Your task to perform on an android device: manage bookmarks in the chrome app Image 0: 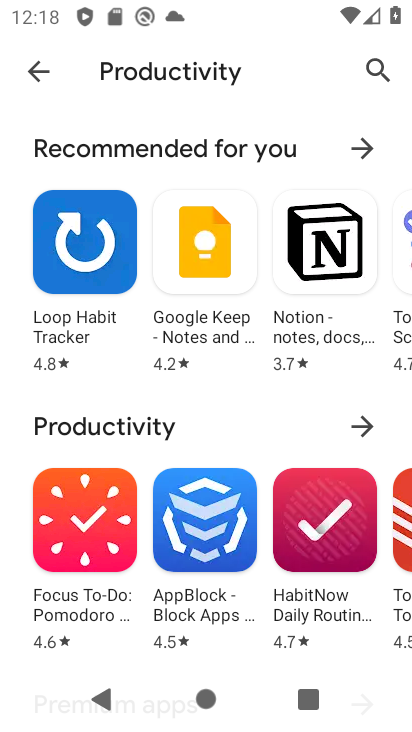
Step 0: press home button
Your task to perform on an android device: manage bookmarks in the chrome app Image 1: 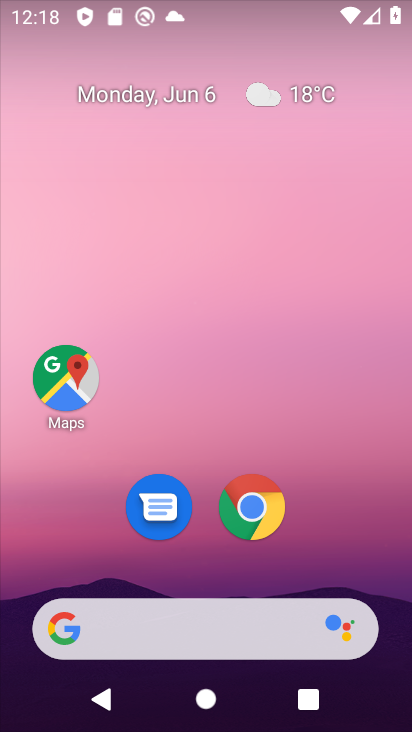
Step 1: click (227, 512)
Your task to perform on an android device: manage bookmarks in the chrome app Image 2: 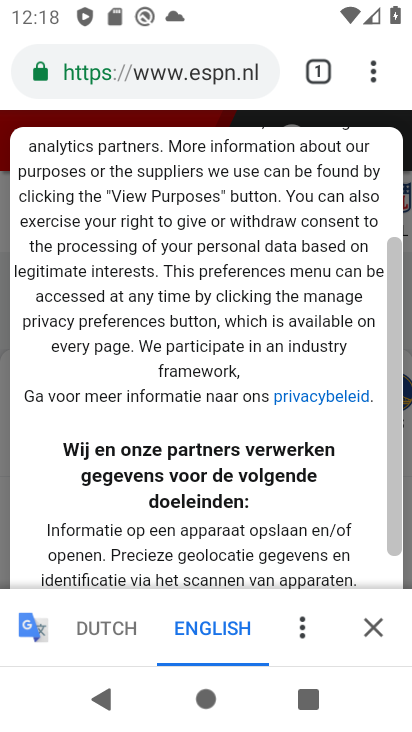
Step 2: click (377, 72)
Your task to perform on an android device: manage bookmarks in the chrome app Image 3: 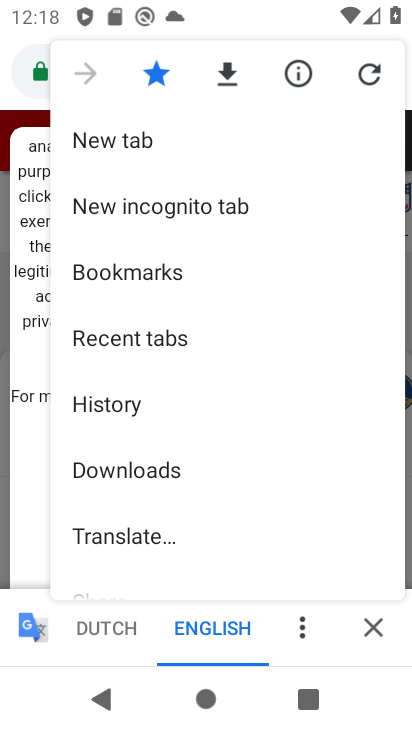
Step 3: click (154, 278)
Your task to perform on an android device: manage bookmarks in the chrome app Image 4: 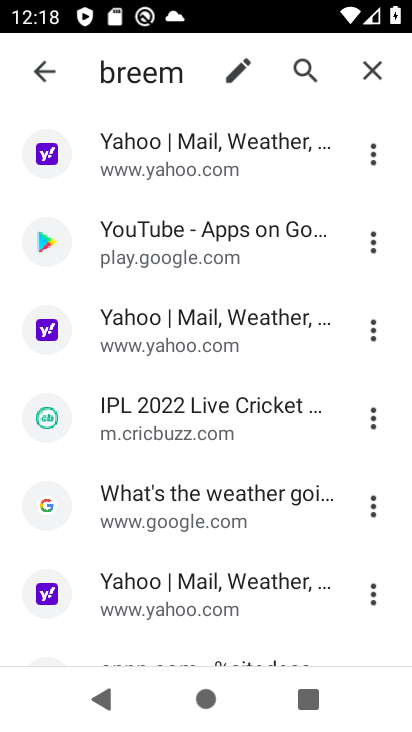
Step 4: click (367, 152)
Your task to perform on an android device: manage bookmarks in the chrome app Image 5: 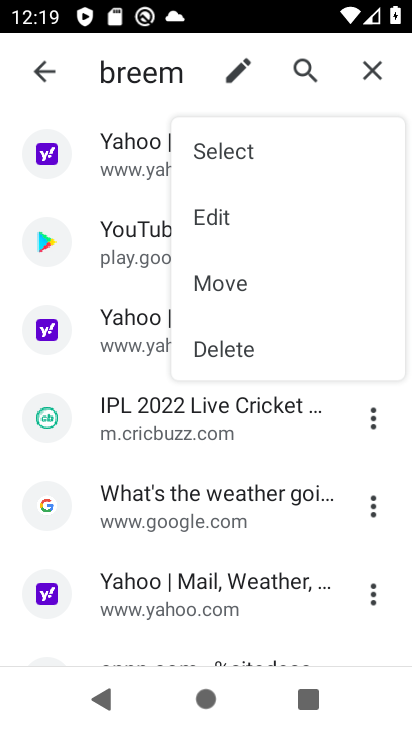
Step 5: click (52, 74)
Your task to perform on an android device: manage bookmarks in the chrome app Image 6: 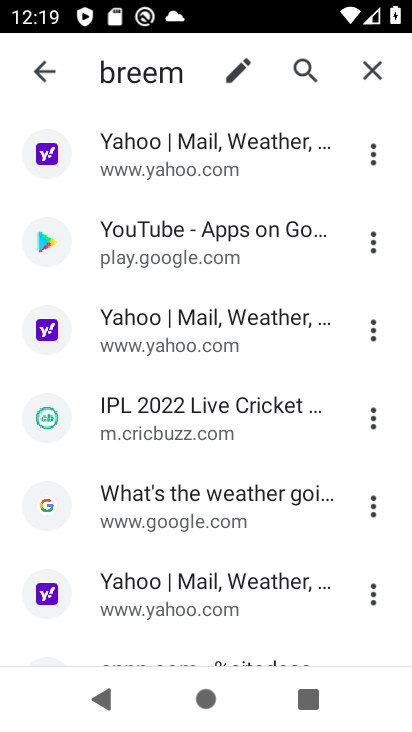
Step 6: click (52, 77)
Your task to perform on an android device: manage bookmarks in the chrome app Image 7: 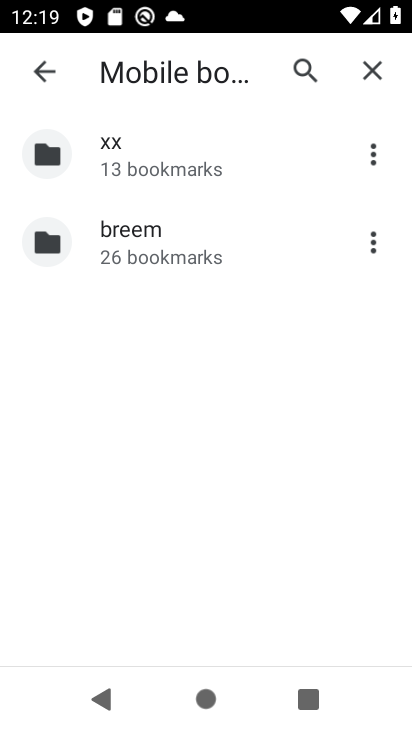
Step 7: click (63, 64)
Your task to perform on an android device: manage bookmarks in the chrome app Image 8: 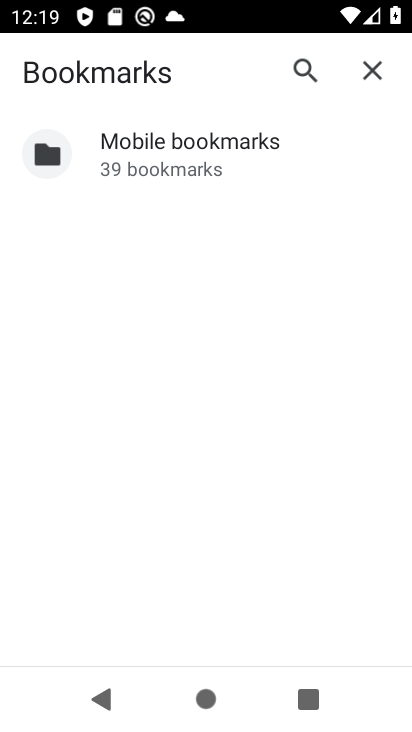
Step 8: click (196, 167)
Your task to perform on an android device: manage bookmarks in the chrome app Image 9: 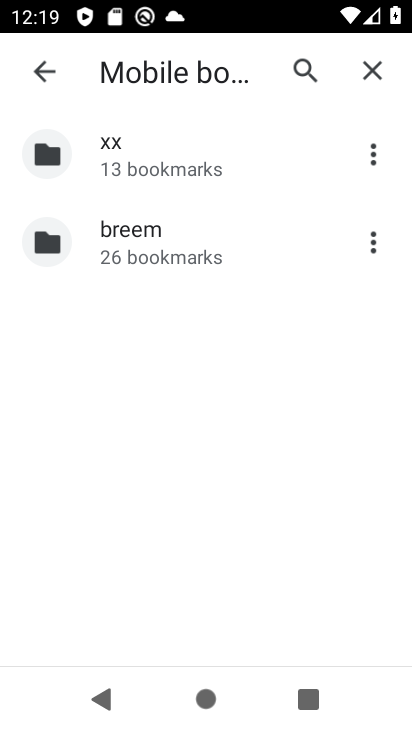
Step 9: click (205, 237)
Your task to perform on an android device: manage bookmarks in the chrome app Image 10: 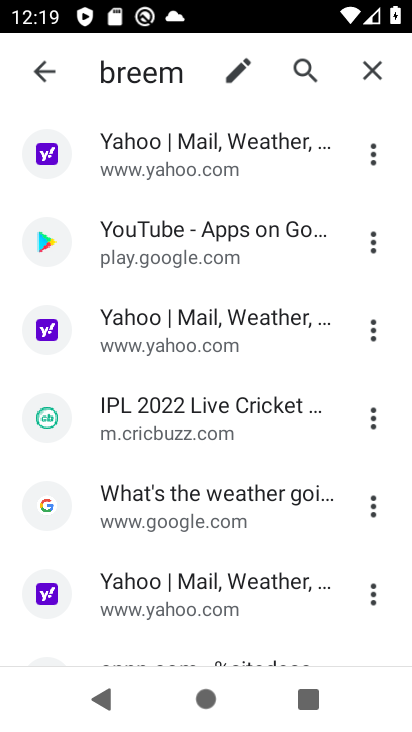
Step 10: click (374, 147)
Your task to perform on an android device: manage bookmarks in the chrome app Image 11: 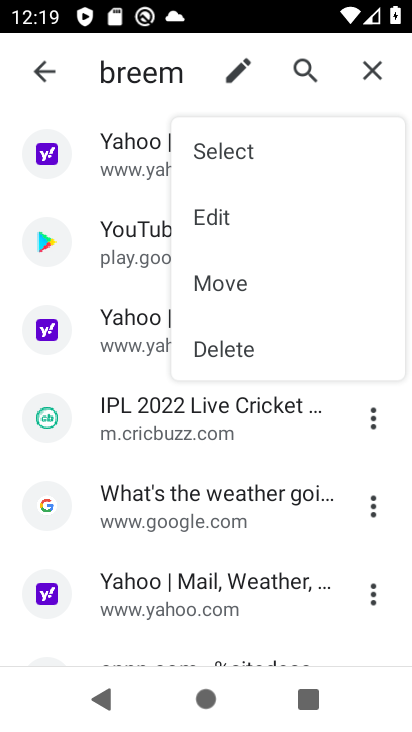
Step 11: click (289, 155)
Your task to perform on an android device: manage bookmarks in the chrome app Image 12: 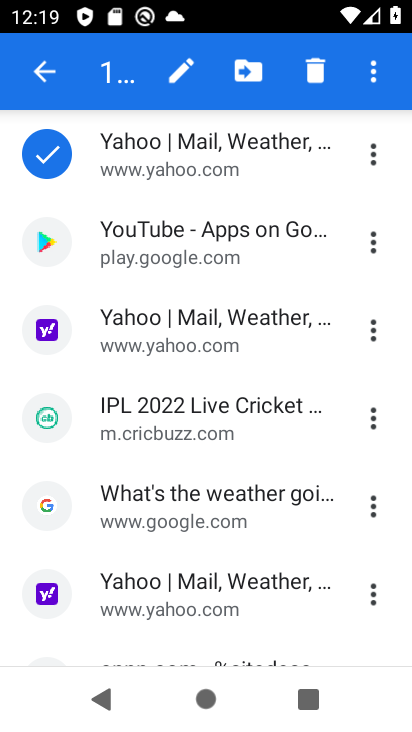
Step 12: click (157, 210)
Your task to perform on an android device: manage bookmarks in the chrome app Image 13: 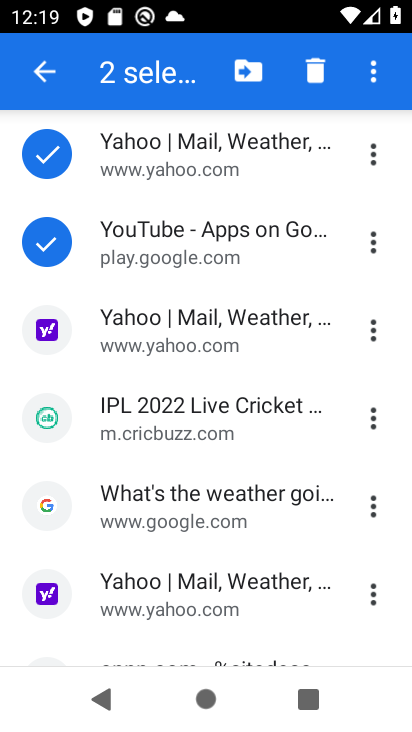
Step 13: click (141, 332)
Your task to perform on an android device: manage bookmarks in the chrome app Image 14: 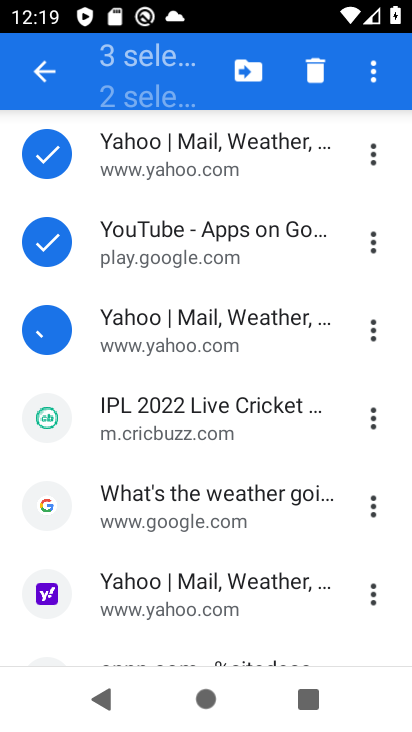
Step 14: click (142, 423)
Your task to perform on an android device: manage bookmarks in the chrome app Image 15: 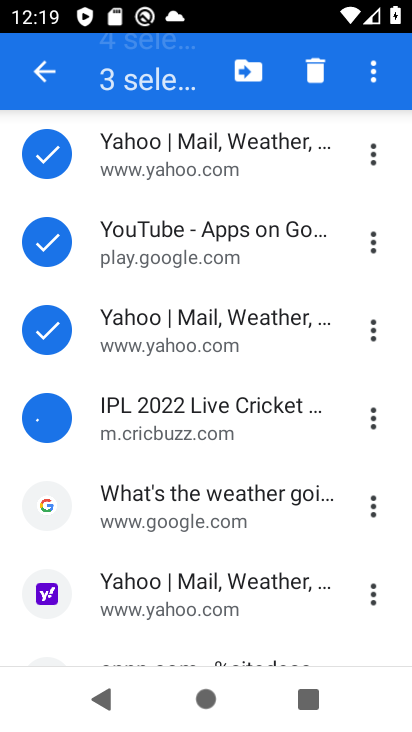
Step 15: click (138, 513)
Your task to perform on an android device: manage bookmarks in the chrome app Image 16: 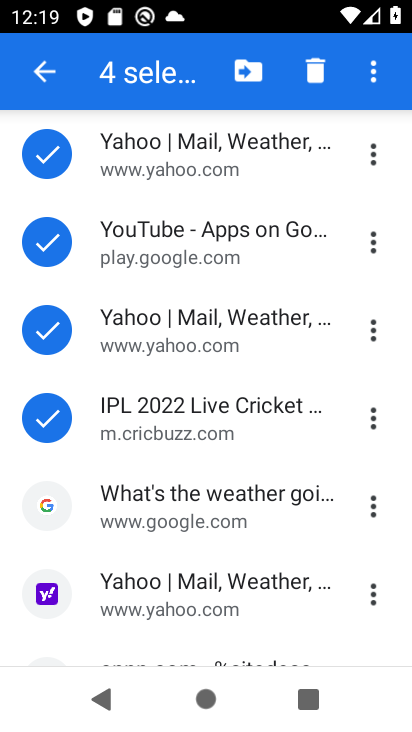
Step 16: click (149, 583)
Your task to perform on an android device: manage bookmarks in the chrome app Image 17: 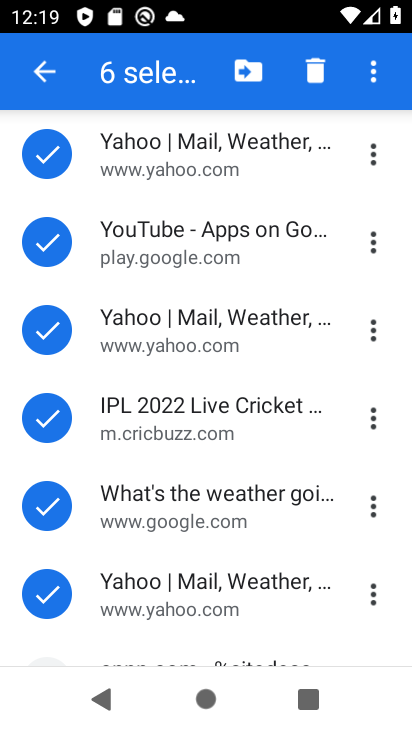
Step 17: drag from (148, 583) to (242, 235)
Your task to perform on an android device: manage bookmarks in the chrome app Image 18: 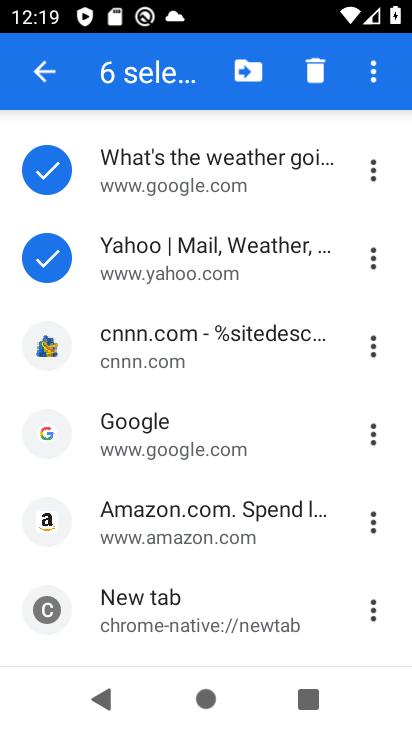
Step 18: click (198, 355)
Your task to perform on an android device: manage bookmarks in the chrome app Image 19: 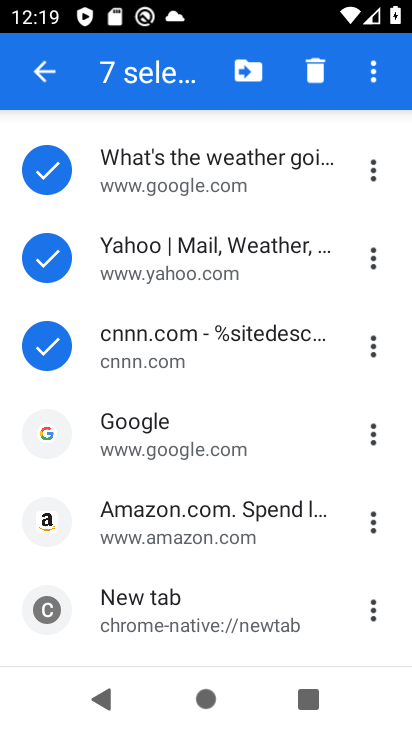
Step 19: click (146, 510)
Your task to perform on an android device: manage bookmarks in the chrome app Image 20: 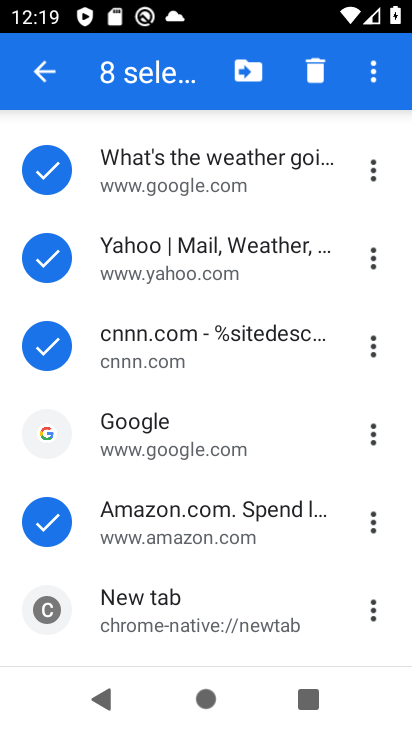
Step 20: click (248, 75)
Your task to perform on an android device: manage bookmarks in the chrome app Image 21: 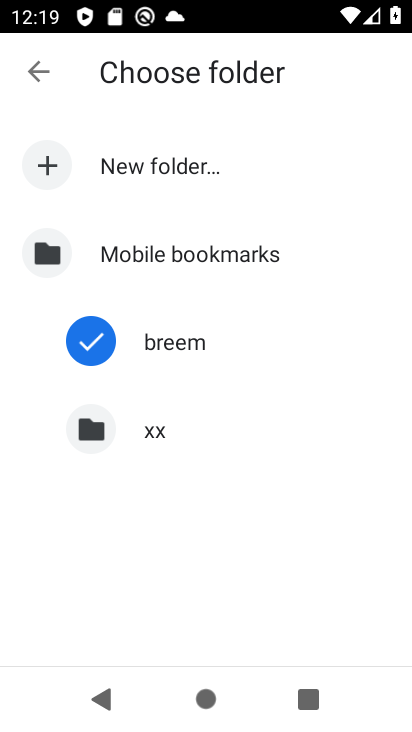
Step 21: click (174, 434)
Your task to perform on an android device: manage bookmarks in the chrome app Image 22: 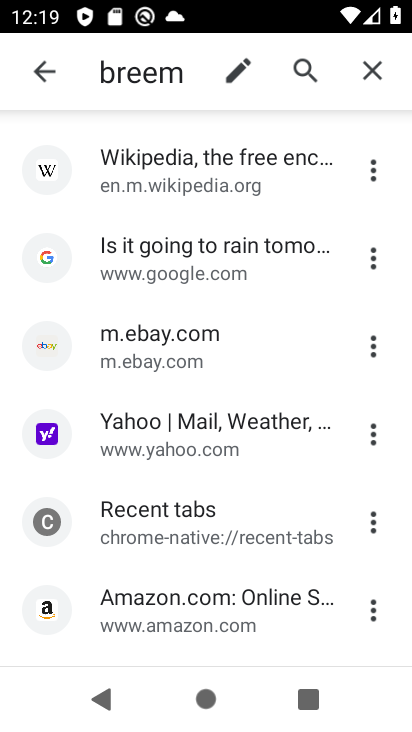
Step 22: task complete